Your task to perform on an android device: change timer sound Image 0: 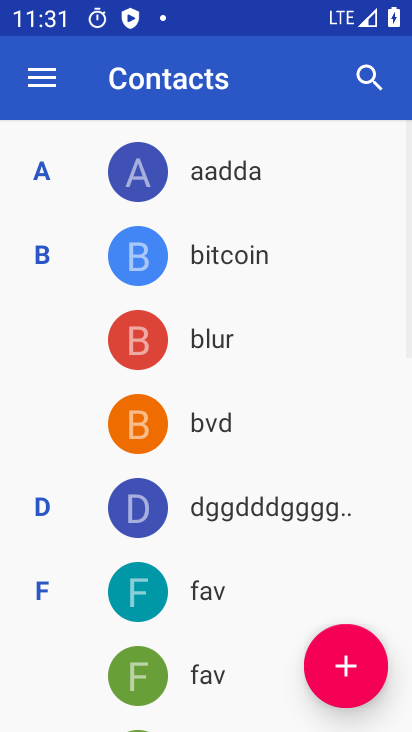
Step 0: press back button
Your task to perform on an android device: change timer sound Image 1: 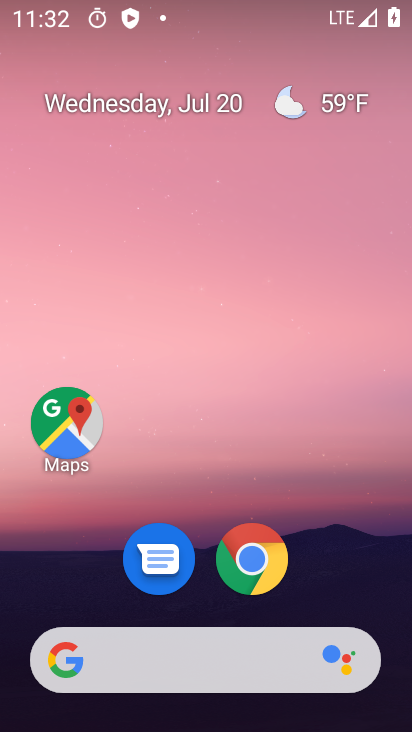
Step 1: drag from (88, 522) to (221, 17)
Your task to perform on an android device: change timer sound Image 2: 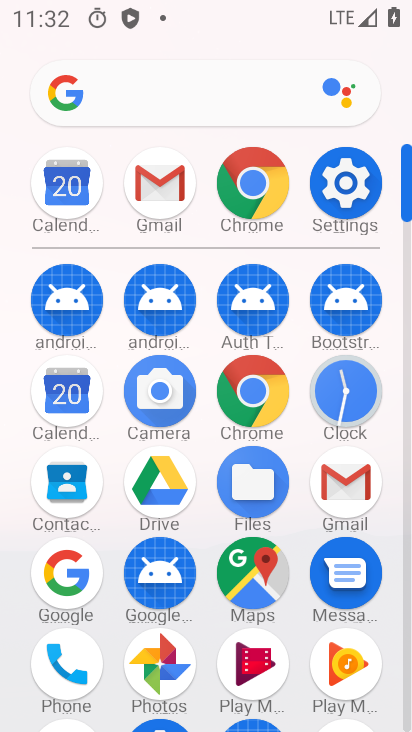
Step 2: click (350, 399)
Your task to perform on an android device: change timer sound Image 3: 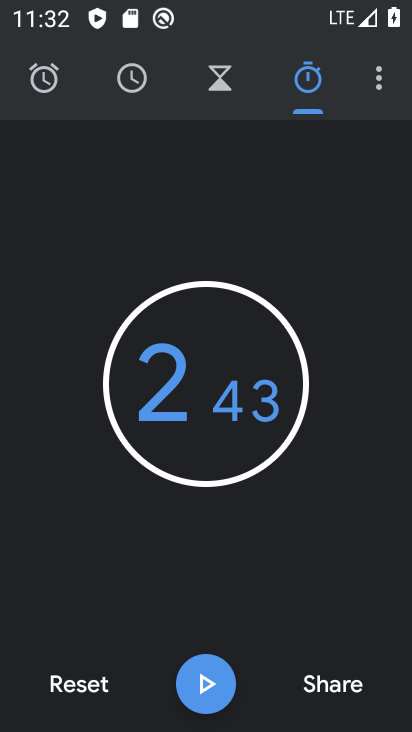
Step 3: click (380, 73)
Your task to perform on an android device: change timer sound Image 4: 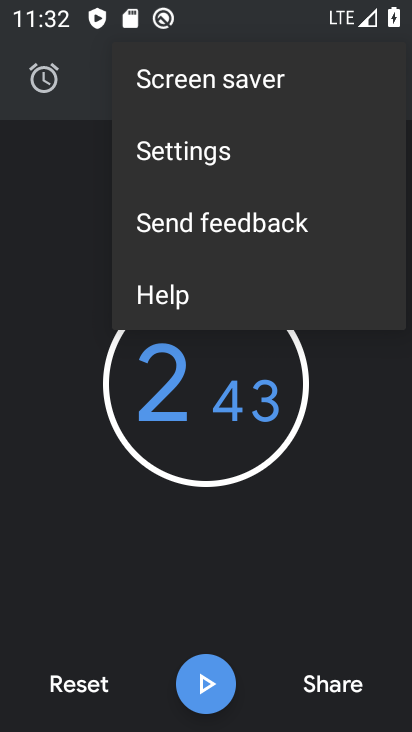
Step 4: click (188, 159)
Your task to perform on an android device: change timer sound Image 5: 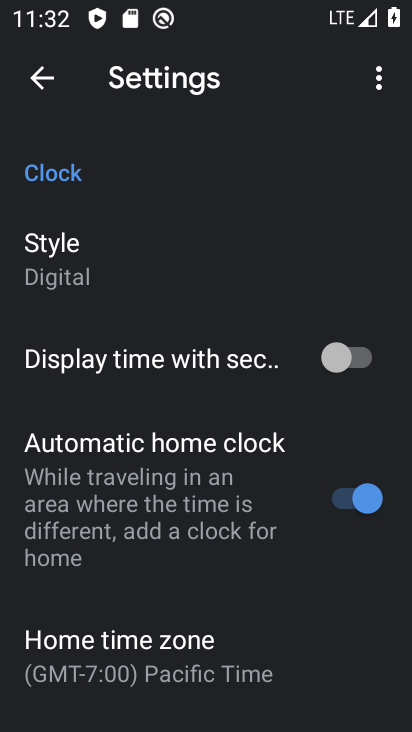
Step 5: drag from (162, 622) to (227, 211)
Your task to perform on an android device: change timer sound Image 6: 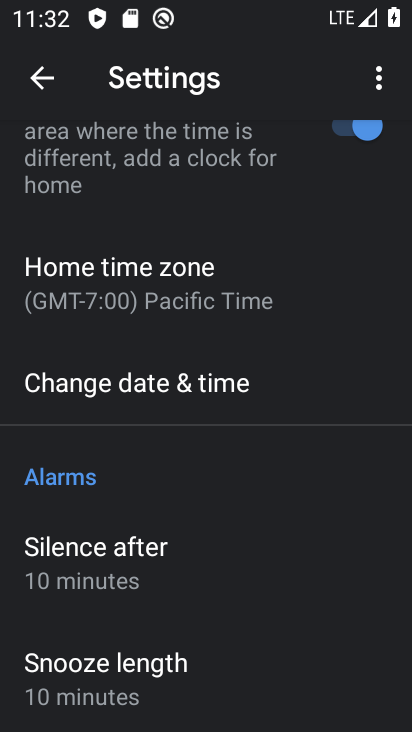
Step 6: drag from (149, 613) to (223, 120)
Your task to perform on an android device: change timer sound Image 7: 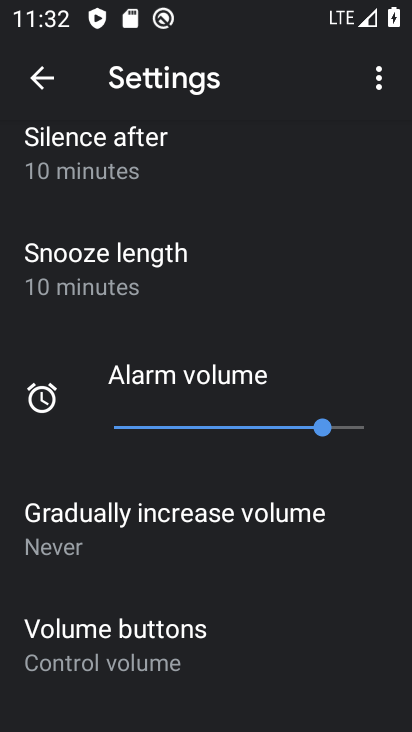
Step 7: drag from (156, 606) to (206, 160)
Your task to perform on an android device: change timer sound Image 8: 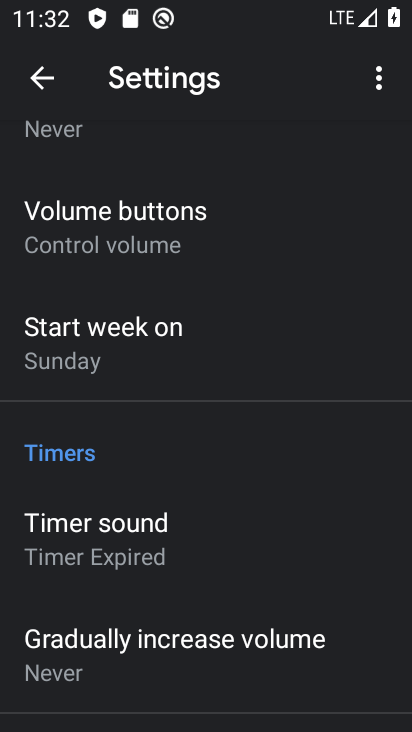
Step 8: click (112, 545)
Your task to perform on an android device: change timer sound Image 9: 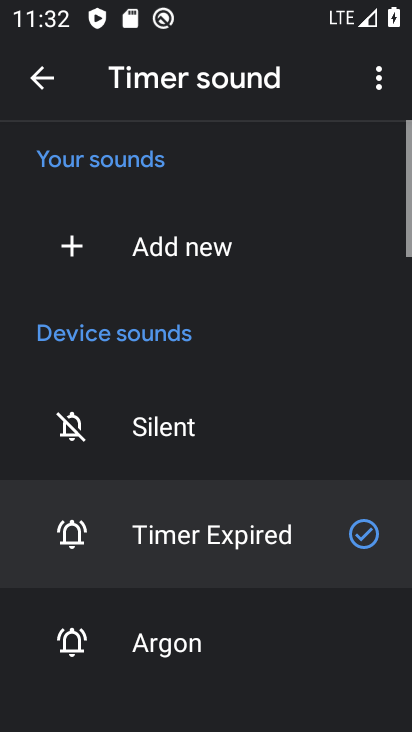
Step 9: click (181, 656)
Your task to perform on an android device: change timer sound Image 10: 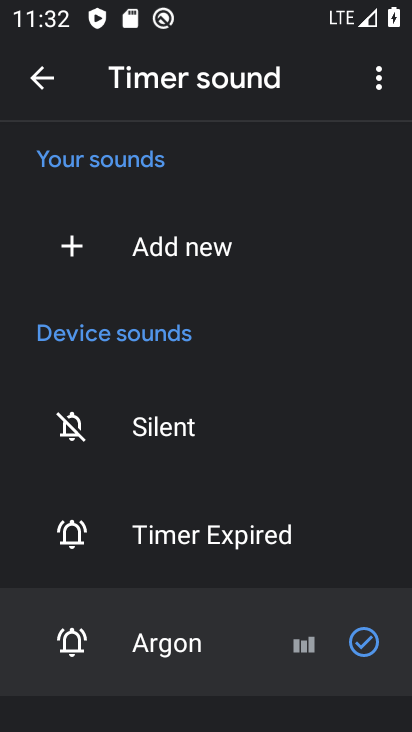
Step 10: task complete